Your task to perform on an android device: Open the phone app and click the voicemail tab. Image 0: 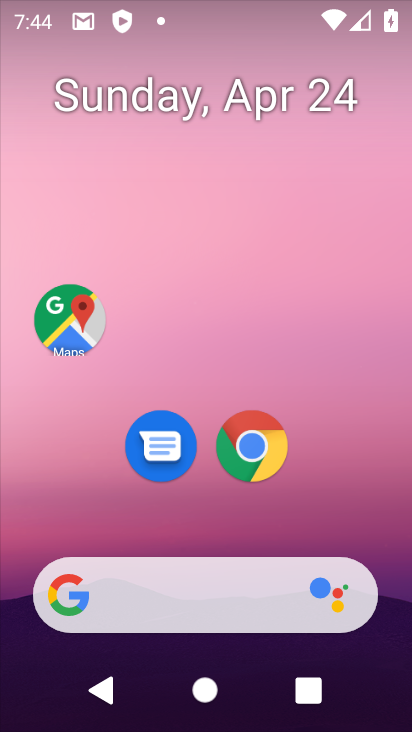
Step 0: drag from (254, 614) to (301, 150)
Your task to perform on an android device: Open the phone app and click the voicemail tab. Image 1: 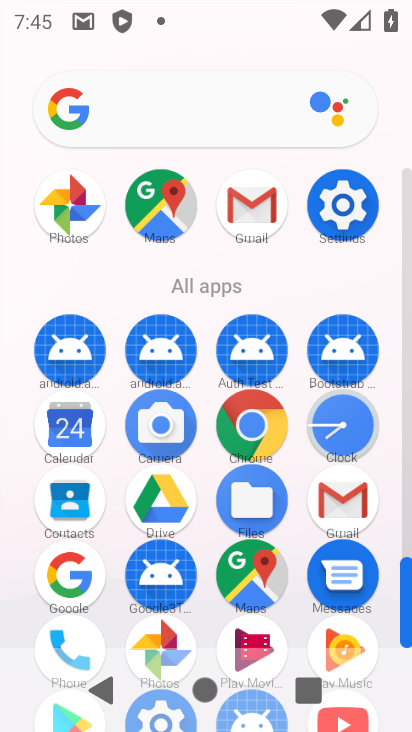
Step 1: drag from (241, 529) to (291, 246)
Your task to perform on an android device: Open the phone app and click the voicemail tab. Image 2: 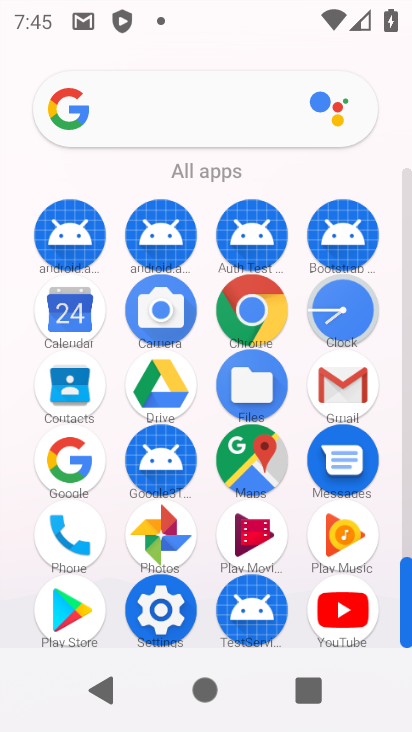
Step 2: click (59, 556)
Your task to perform on an android device: Open the phone app and click the voicemail tab. Image 3: 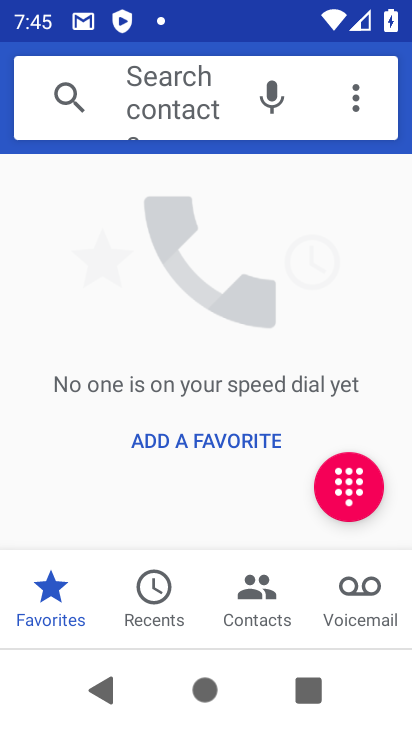
Step 3: click (334, 609)
Your task to perform on an android device: Open the phone app and click the voicemail tab. Image 4: 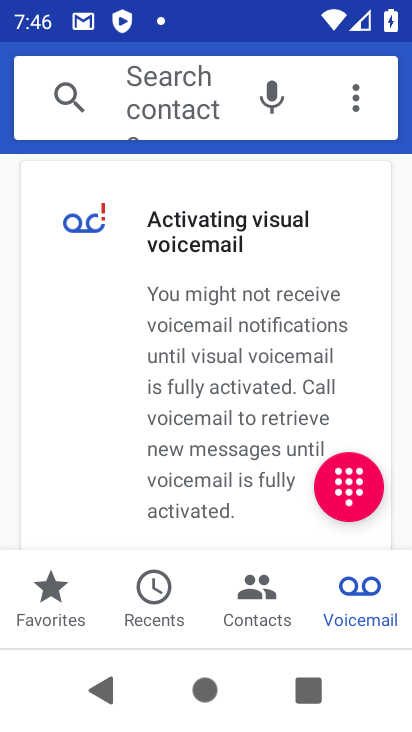
Step 4: task complete